Your task to perform on an android device: Go to battery settings Image 0: 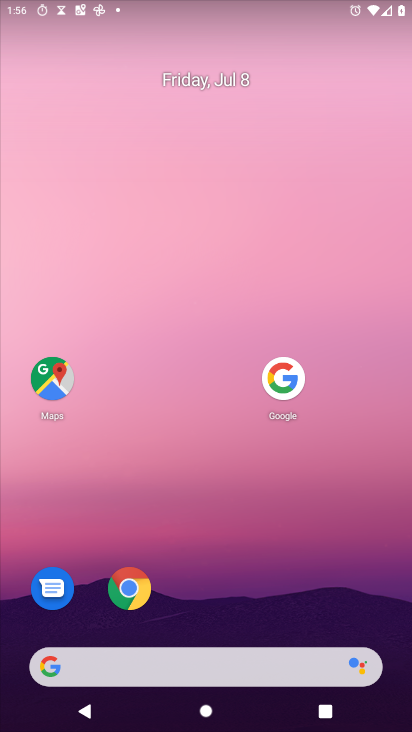
Step 0: press home button
Your task to perform on an android device: Go to battery settings Image 1: 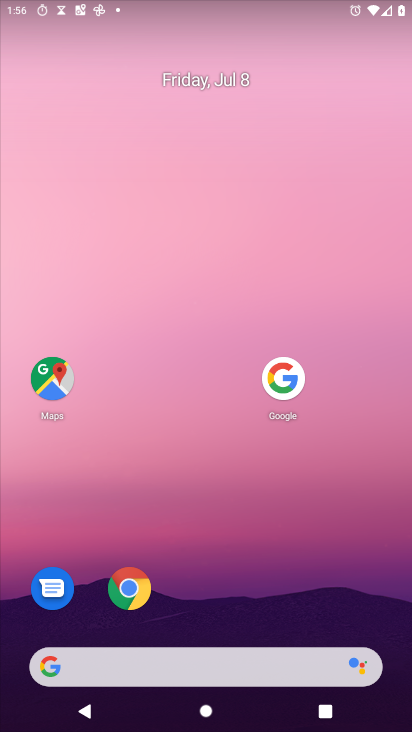
Step 1: drag from (214, 646) to (162, 143)
Your task to perform on an android device: Go to battery settings Image 2: 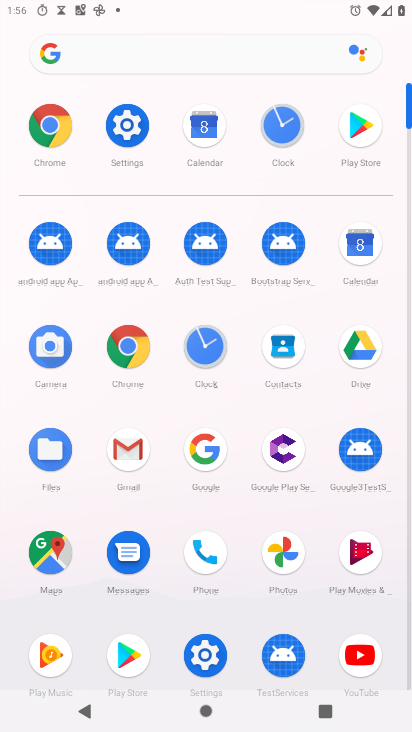
Step 2: click (129, 128)
Your task to perform on an android device: Go to battery settings Image 3: 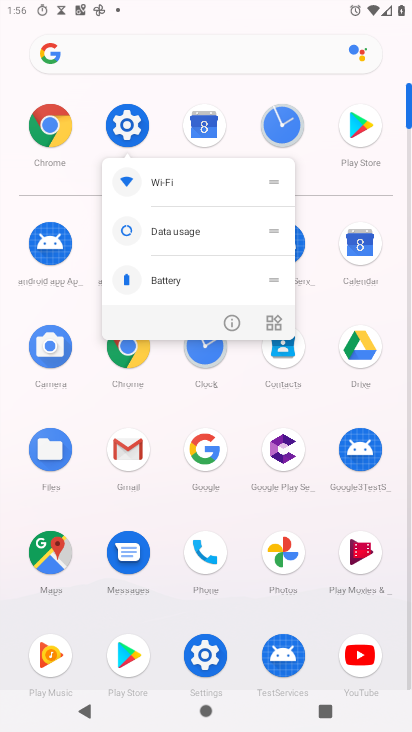
Step 3: click (129, 129)
Your task to perform on an android device: Go to battery settings Image 4: 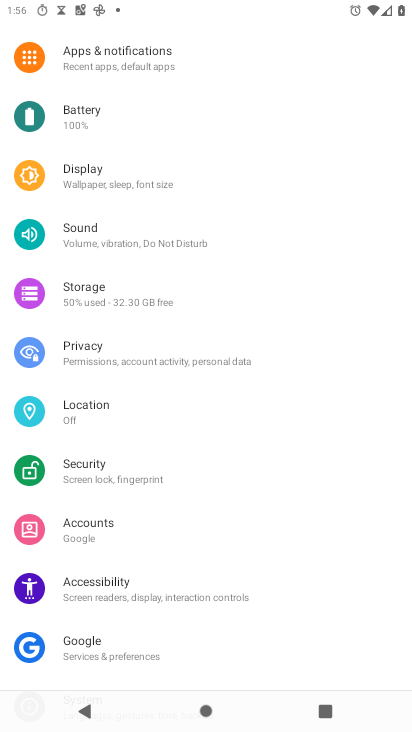
Step 4: click (76, 112)
Your task to perform on an android device: Go to battery settings Image 5: 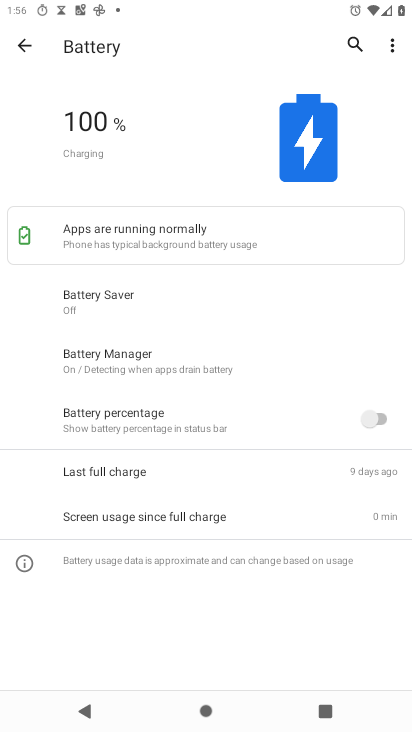
Step 5: task complete